Your task to perform on an android device: Show the shopping cart on costco.com. Search for "amazon basics triple a" on costco.com, select the first entry, and add it to the cart. Image 0: 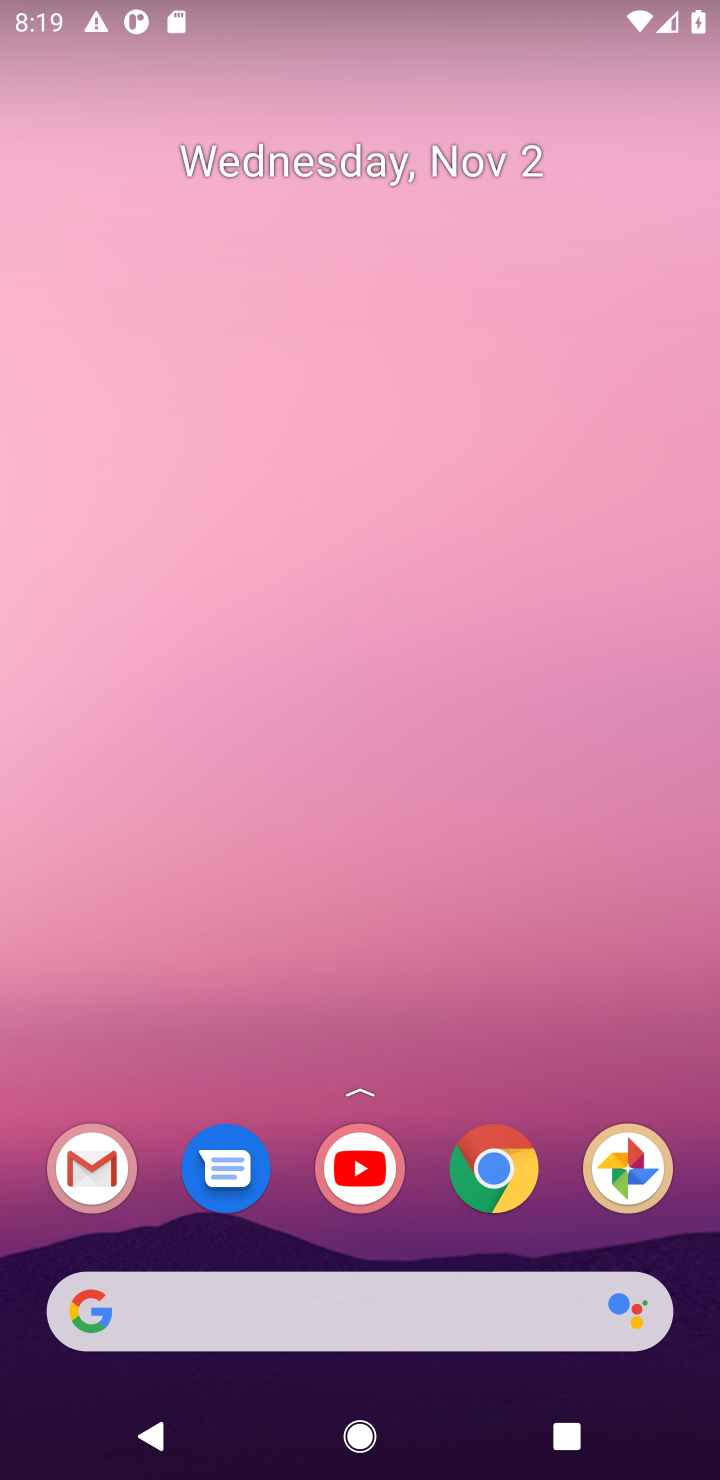
Step 0: click (494, 1167)
Your task to perform on an android device: Show the shopping cart on costco.com. Search for "amazon basics triple a" on costco.com, select the first entry, and add it to the cart. Image 1: 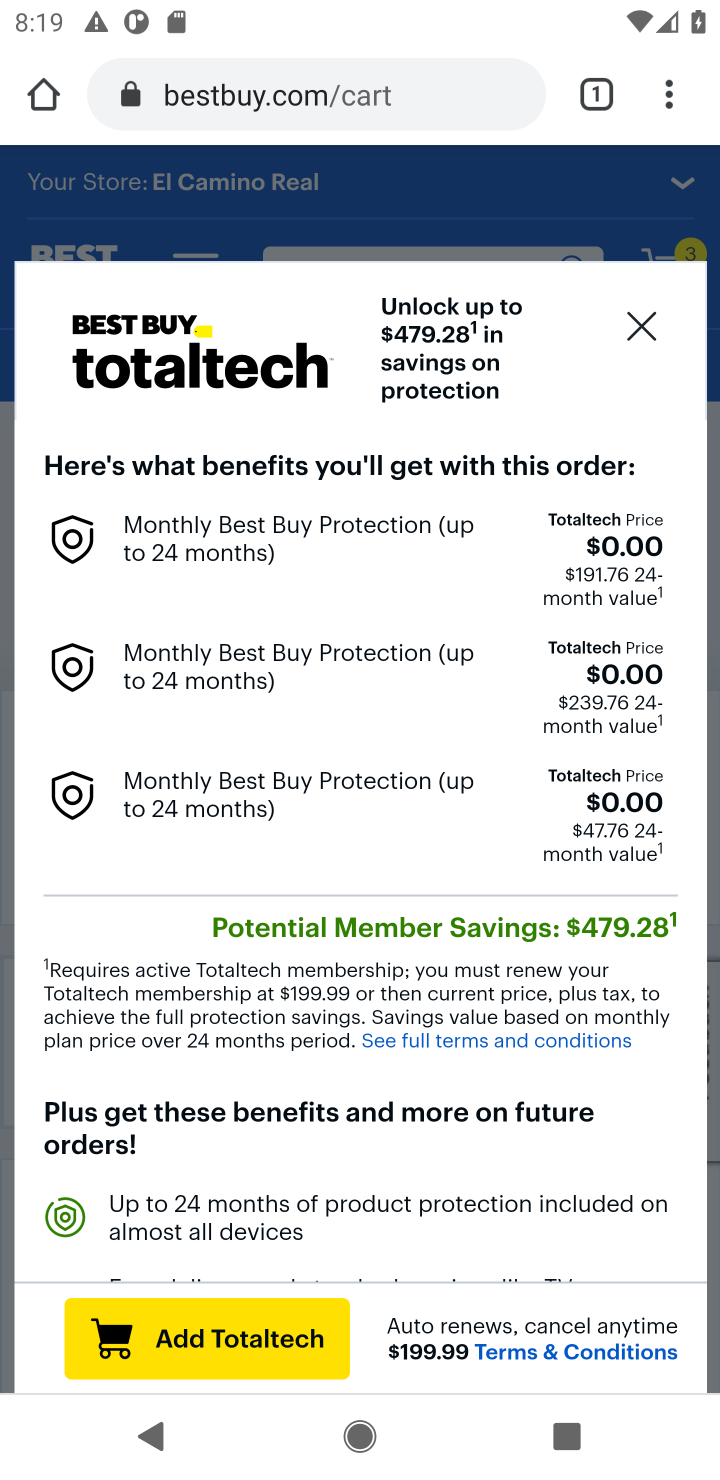
Step 1: click (425, 107)
Your task to perform on an android device: Show the shopping cart on costco.com. Search for "amazon basics triple a" on costco.com, select the first entry, and add it to the cart. Image 2: 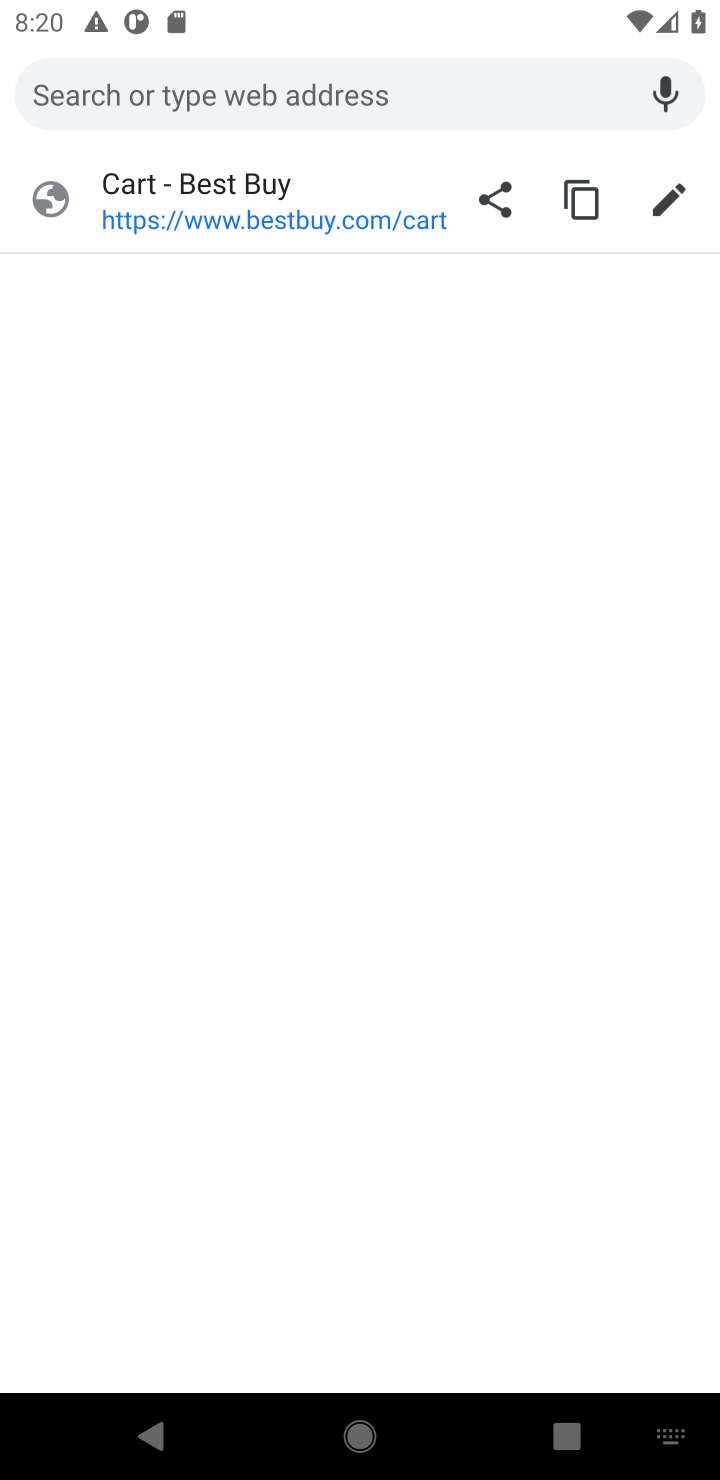
Step 2: type "costco.com"
Your task to perform on an android device: Show the shopping cart on costco.com. Search for "amazon basics triple a" on costco.com, select the first entry, and add it to the cart. Image 3: 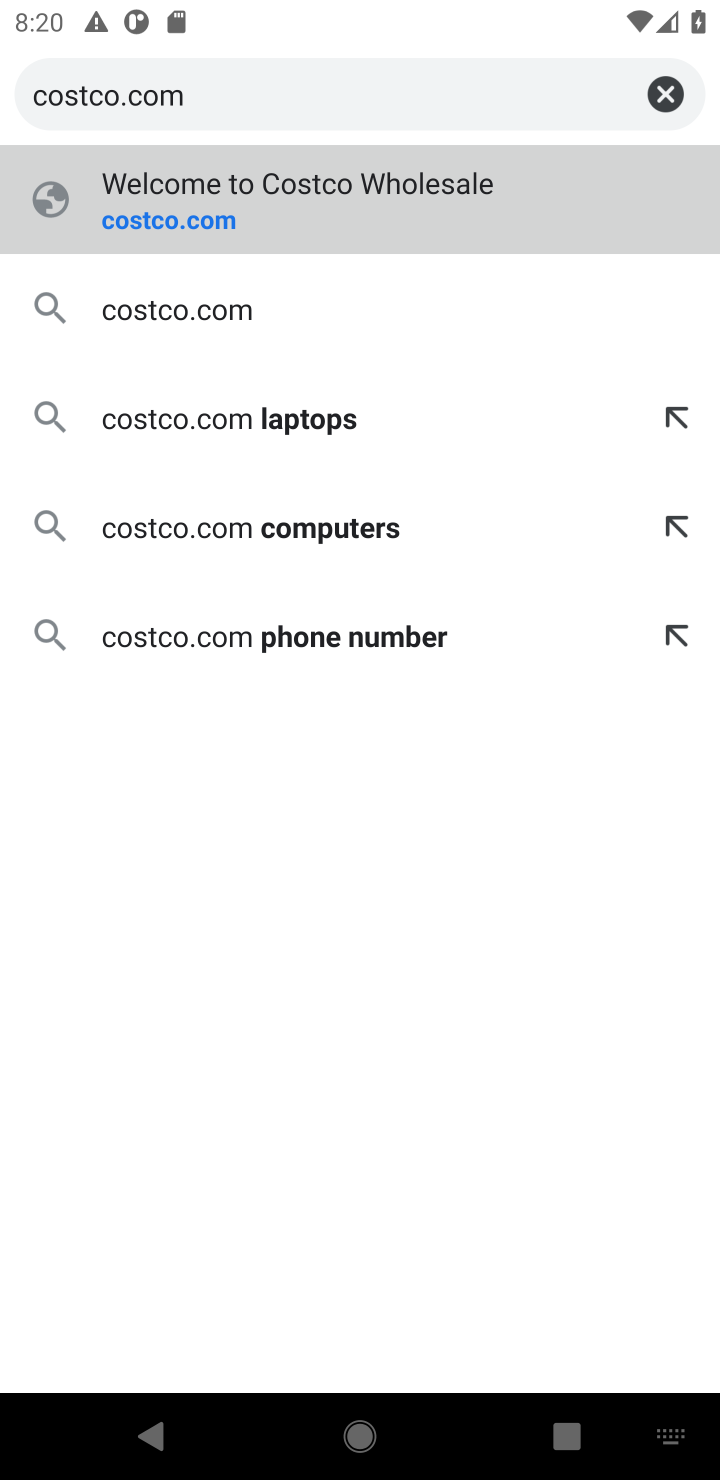
Step 3: click (205, 318)
Your task to perform on an android device: Show the shopping cart on costco.com. Search for "amazon basics triple a" on costco.com, select the first entry, and add it to the cart. Image 4: 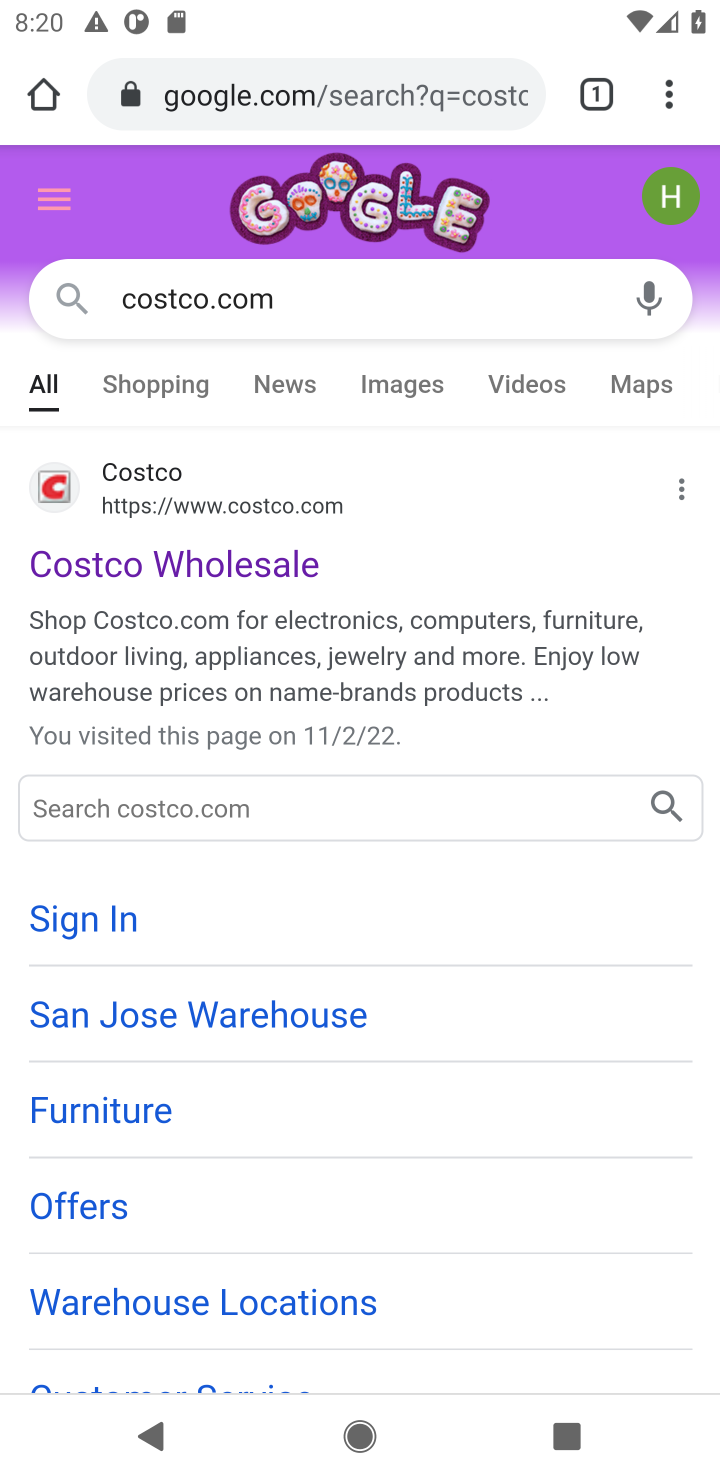
Step 4: click (309, 566)
Your task to perform on an android device: Show the shopping cart on costco.com. Search for "amazon basics triple a" on costco.com, select the first entry, and add it to the cart. Image 5: 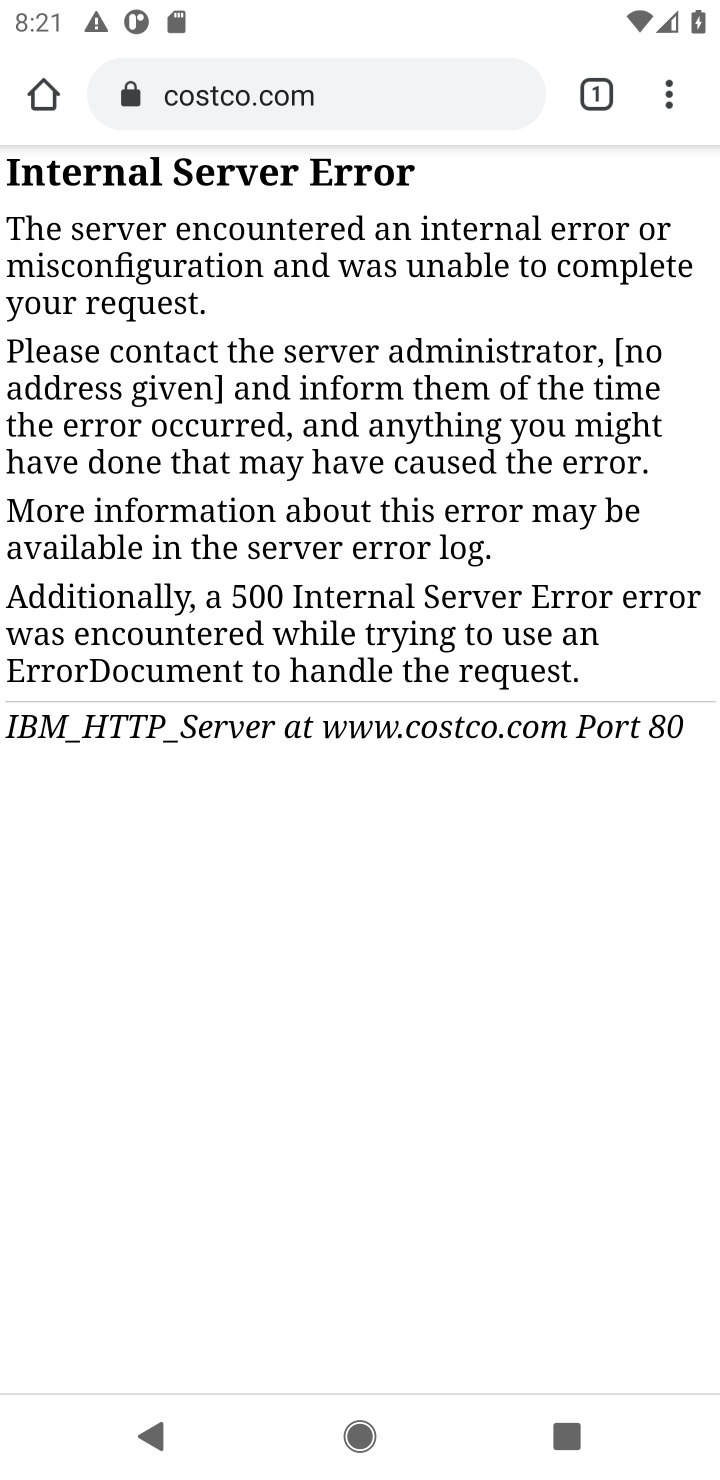
Step 5: task complete